Your task to perform on an android device: toggle translation in the chrome app Image 0: 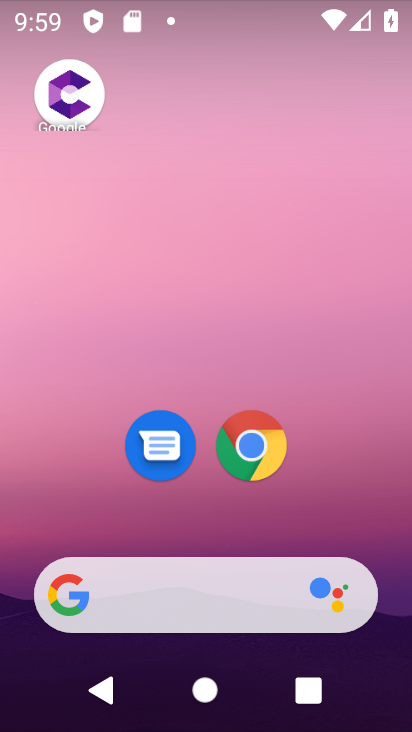
Step 0: click (259, 438)
Your task to perform on an android device: toggle translation in the chrome app Image 1: 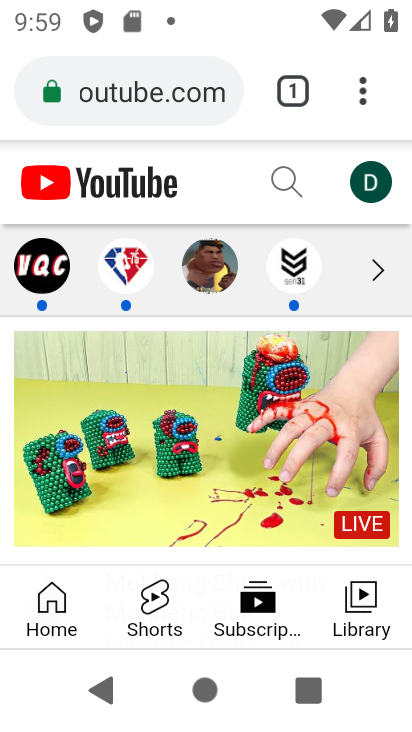
Step 1: click (363, 102)
Your task to perform on an android device: toggle translation in the chrome app Image 2: 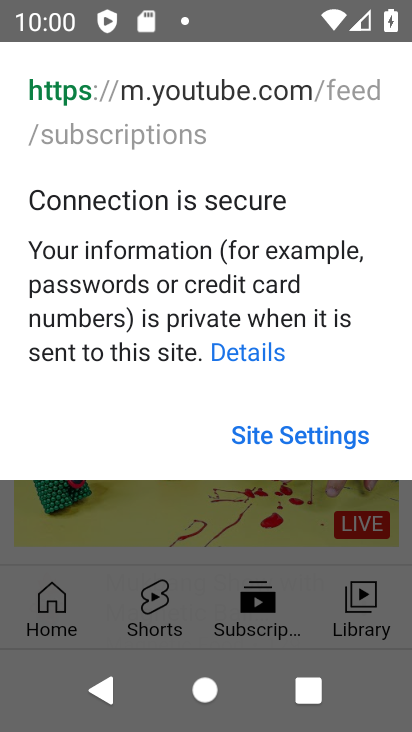
Step 2: press home button
Your task to perform on an android device: toggle translation in the chrome app Image 3: 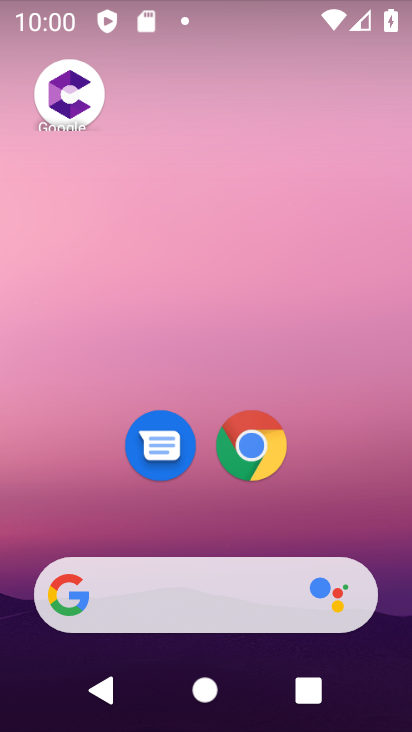
Step 3: click (263, 439)
Your task to perform on an android device: toggle translation in the chrome app Image 4: 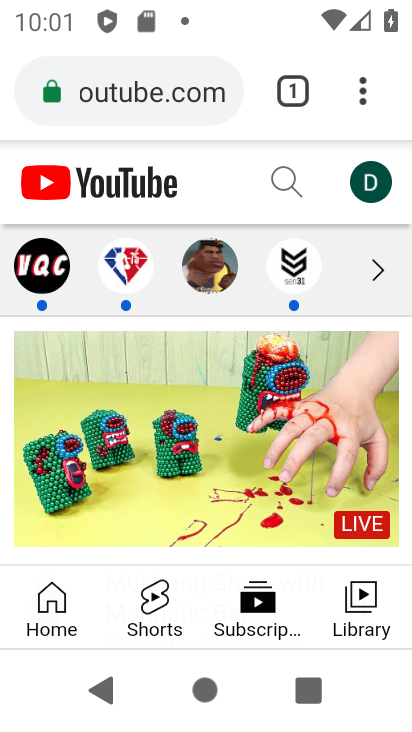
Step 4: click (358, 80)
Your task to perform on an android device: toggle translation in the chrome app Image 5: 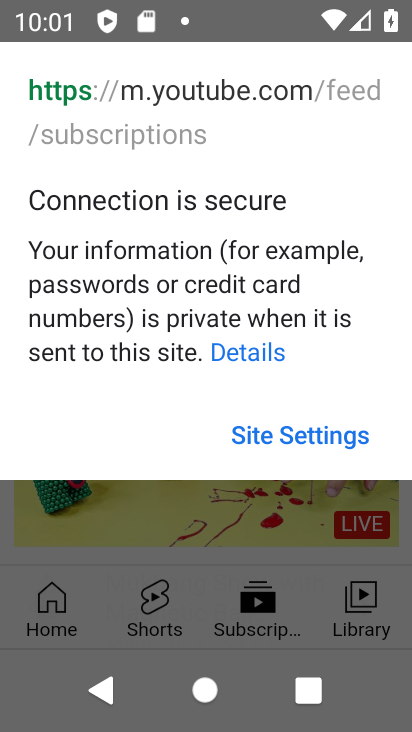
Step 5: press back button
Your task to perform on an android device: toggle translation in the chrome app Image 6: 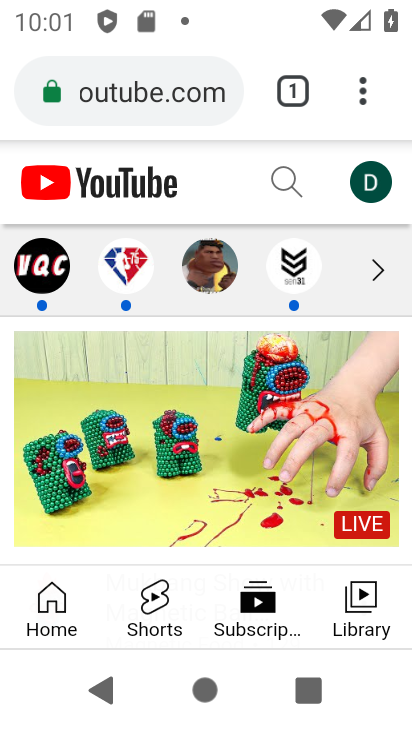
Step 6: click (362, 95)
Your task to perform on an android device: toggle translation in the chrome app Image 7: 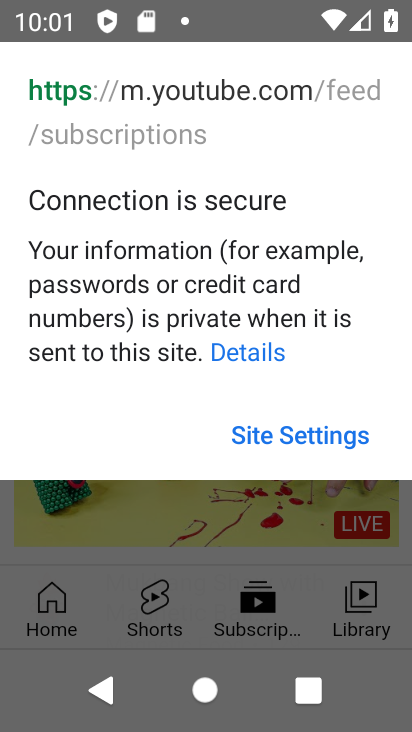
Step 7: click (339, 436)
Your task to perform on an android device: toggle translation in the chrome app Image 8: 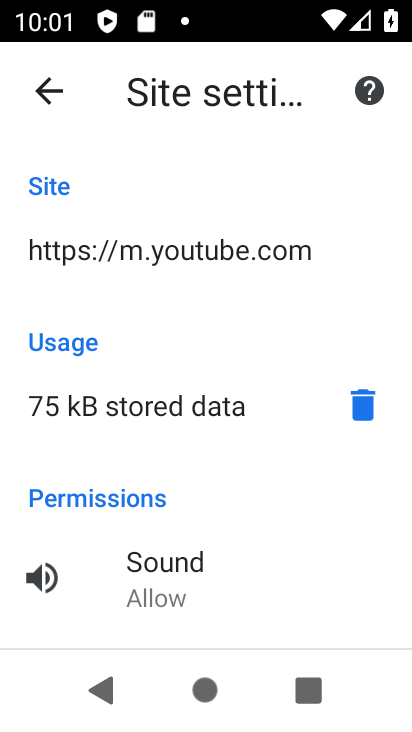
Step 8: click (42, 95)
Your task to perform on an android device: toggle translation in the chrome app Image 9: 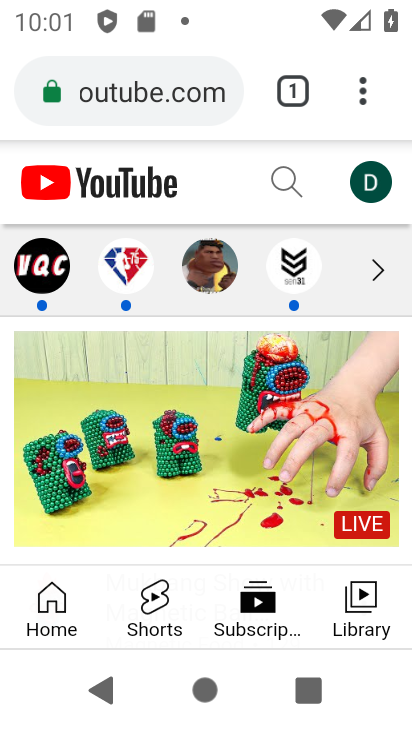
Step 9: click (368, 74)
Your task to perform on an android device: toggle translation in the chrome app Image 10: 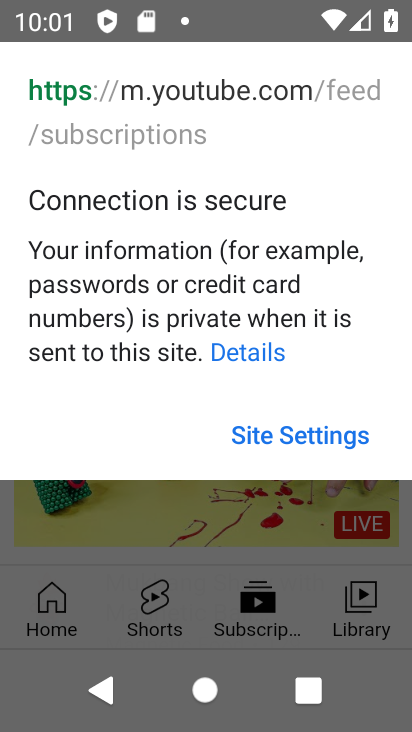
Step 10: click (368, 74)
Your task to perform on an android device: toggle translation in the chrome app Image 11: 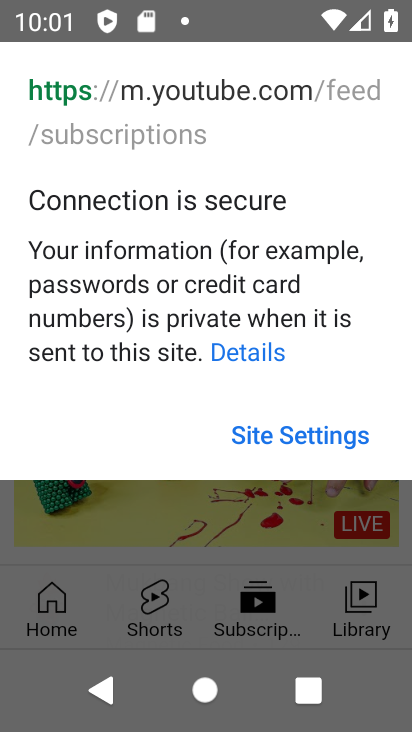
Step 11: click (376, 497)
Your task to perform on an android device: toggle translation in the chrome app Image 12: 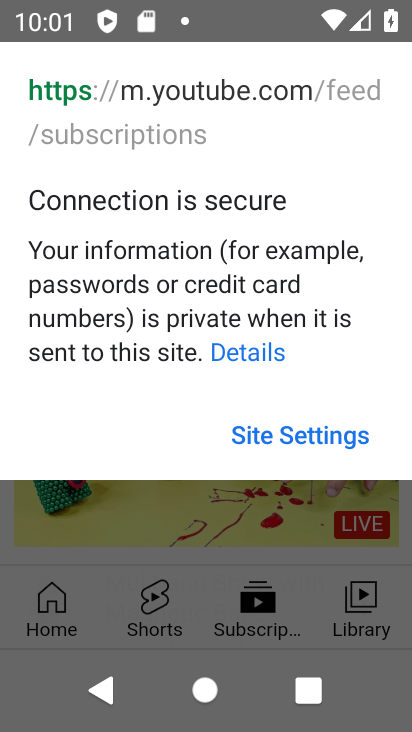
Step 12: click (262, 528)
Your task to perform on an android device: toggle translation in the chrome app Image 13: 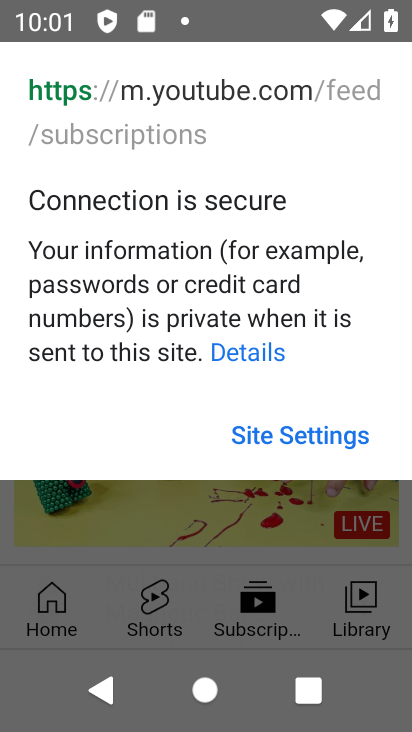
Step 13: click (262, 528)
Your task to perform on an android device: toggle translation in the chrome app Image 14: 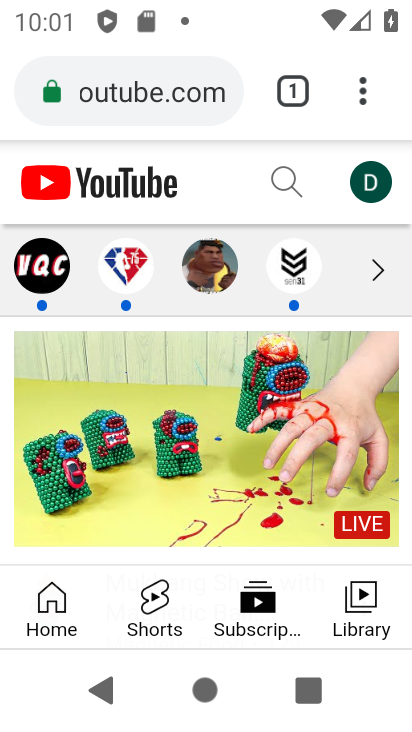
Step 14: click (364, 86)
Your task to perform on an android device: toggle translation in the chrome app Image 15: 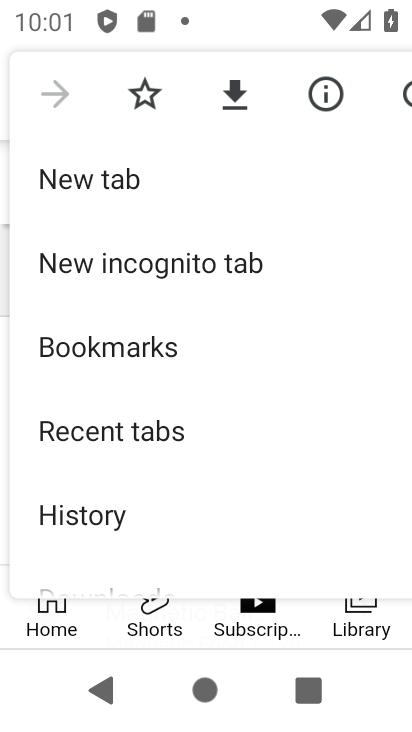
Step 15: drag from (172, 361) to (209, 228)
Your task to perform on an android device: toggle translation in the chrome app Image 16: 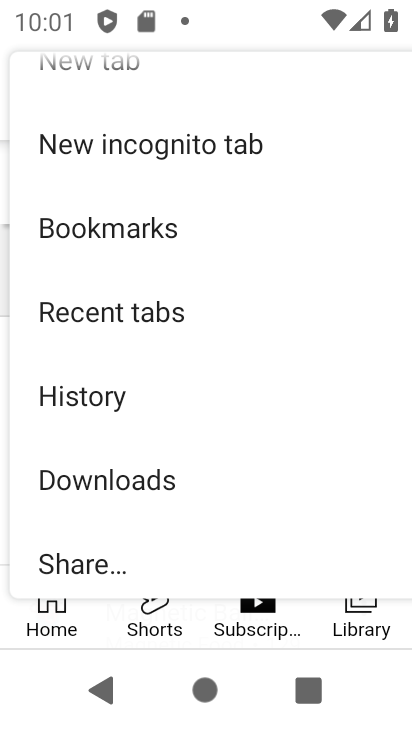
Step 16: drag from (179, 546) to (216, 182)
Your task to perform on an android device: toggle translation in the chrome app Image 17: 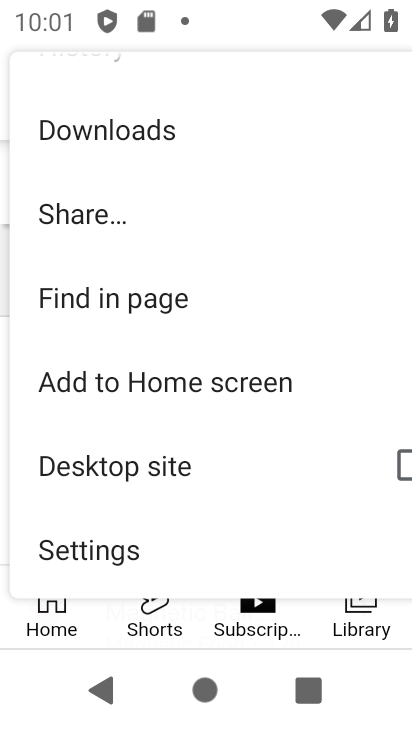
Step 17: click (113, 562)
Your task to perform on an android device: toggle translation in the chrome app Image 18: 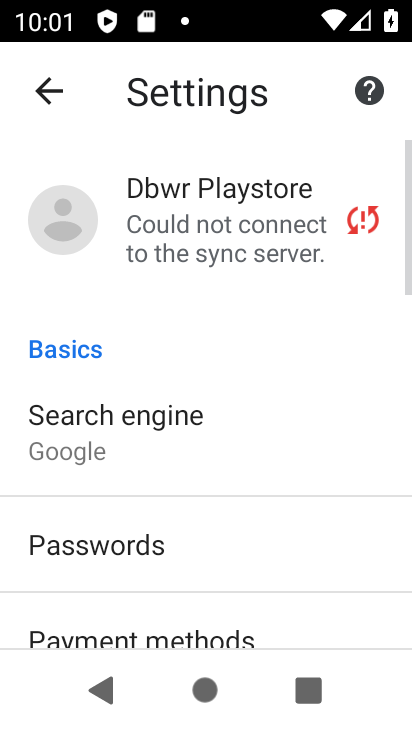
Step 18: drag from (214, 539) to (249, 93)
Your task to perform on an android device: toggle translation in the chrome app Image 19: 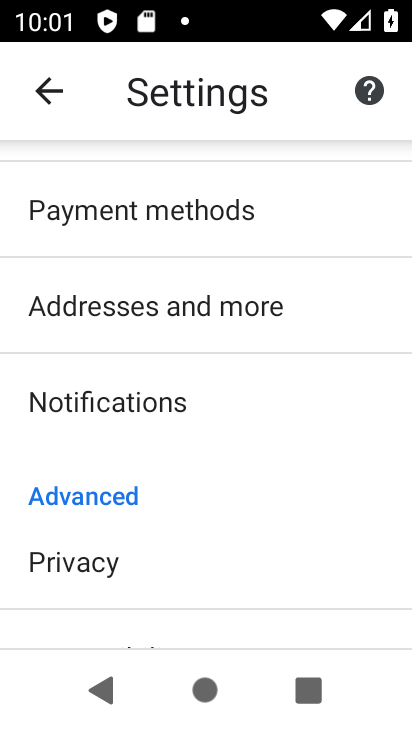
Step 19: drag from (270, 440) to (321, 152)
Your task to perform on an android device: toggle translation in the chrome app Image 20: 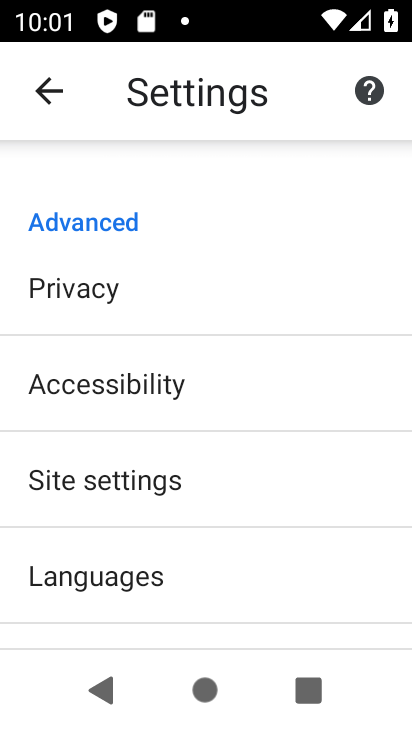
Step 20: click (137, 573)
Your task to perform on an android device: toggle translation in the chrome app Image 21: 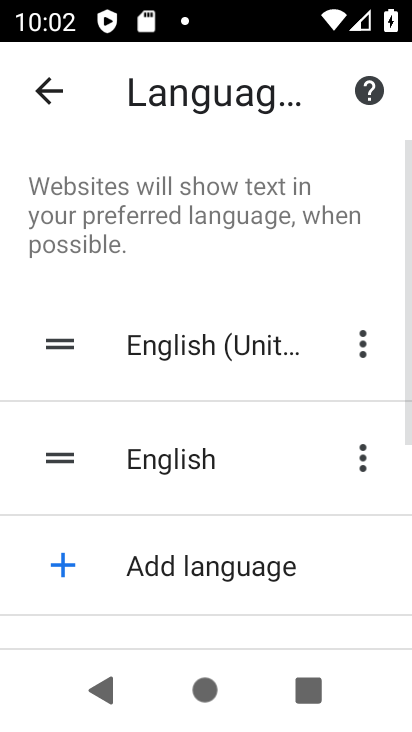
Step 21: drag from (220, 497) to (284, 100)
Your task to perform on an android device: toggle translation in the chrome app Image 22: 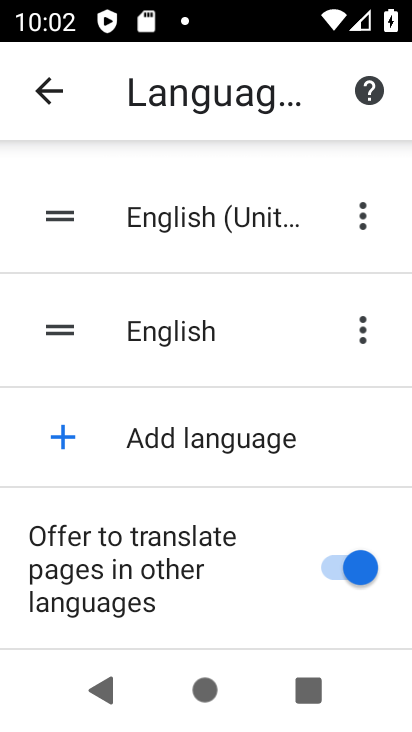
Step 22: click (325, 572)
Your task to perform on an android device: toggle translation in the chrome app Image 23: 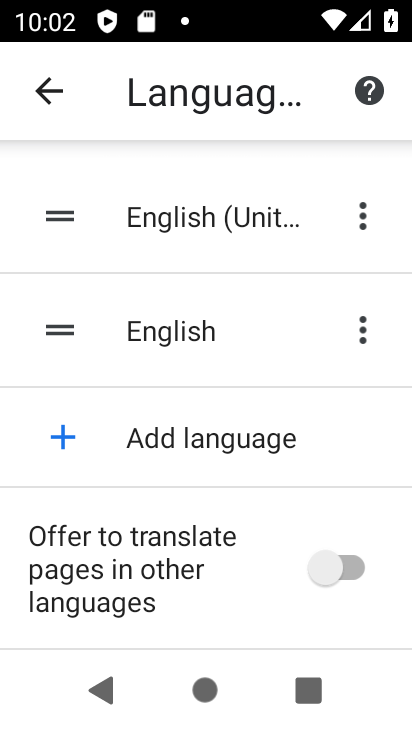
Step 23: task complete